Your task to perform on an android device: delete location history Image 0: 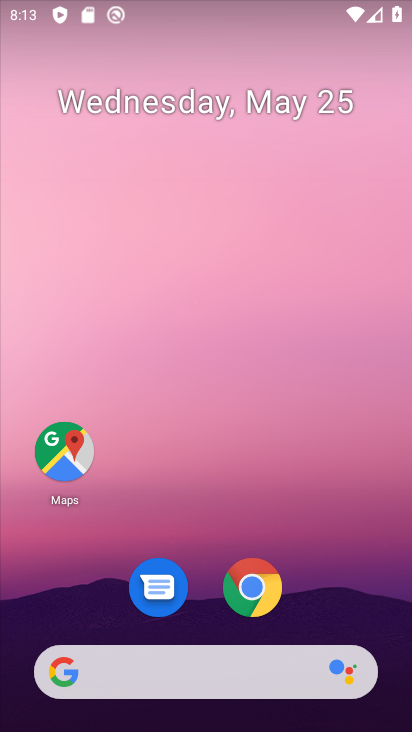
Step 0: drag from (305, 576) to (311, 151)
Your task to perform on an android device: delete location history Image 1: 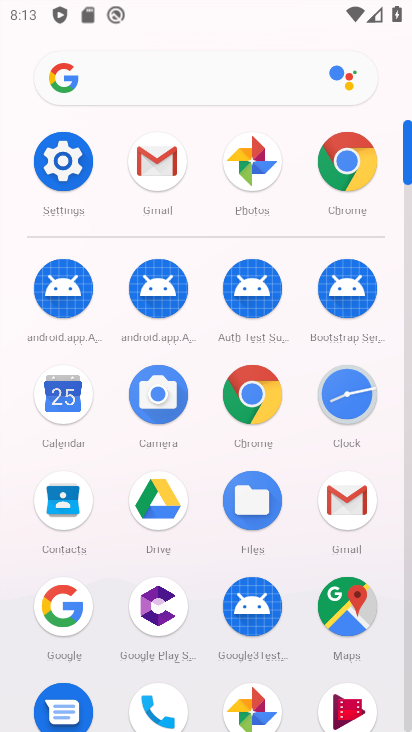
Step 1: click (352, 598)
Your task to perform on an android device: delete location history Image 2: 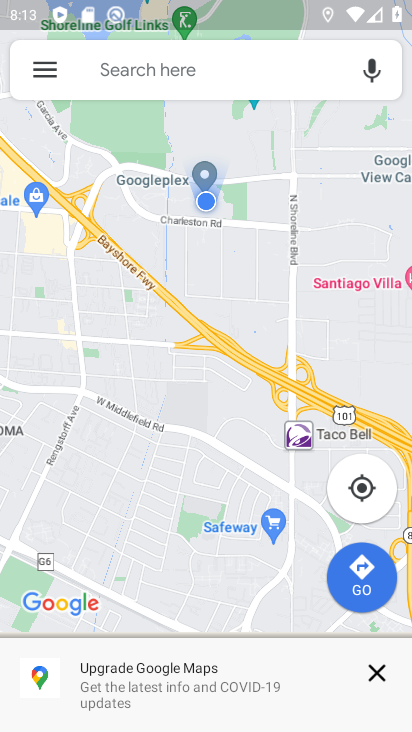
Step 2: click (53, 61)
Your task to perform on an android device: delete location history Image 3: 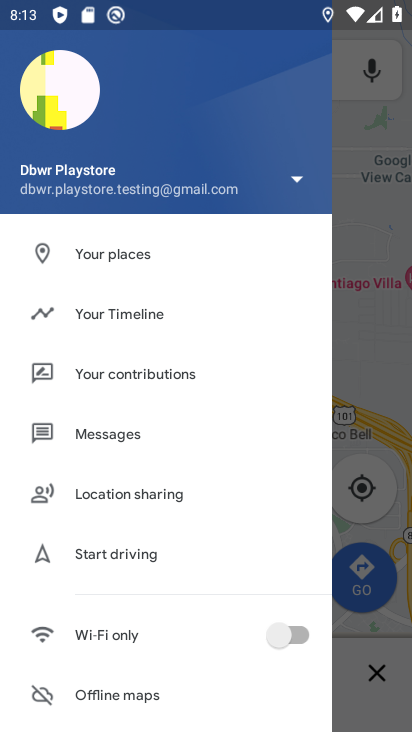
Step 3: click (90, 308)
Your task to perform on an android device: delete location history Image 4: 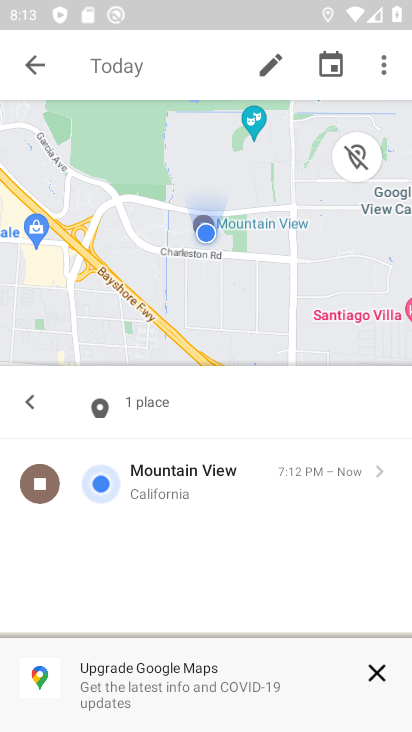
Step 4: click (384, 55)
Your task to perform on an android device: delete location history Image 5: 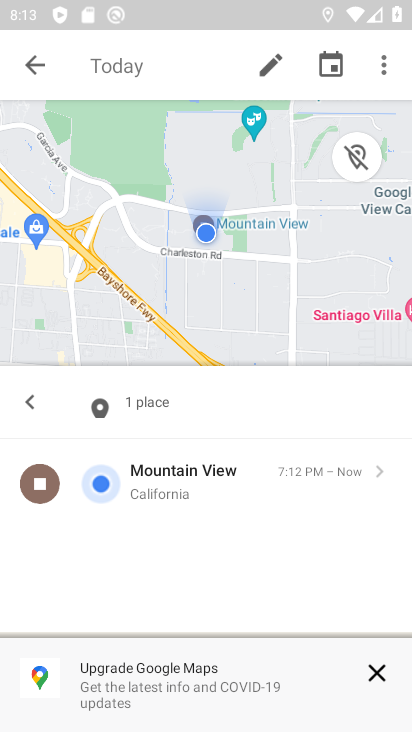
Step 5: click (384, 55)
Your task to perform on an android device: delete location history Image 6: 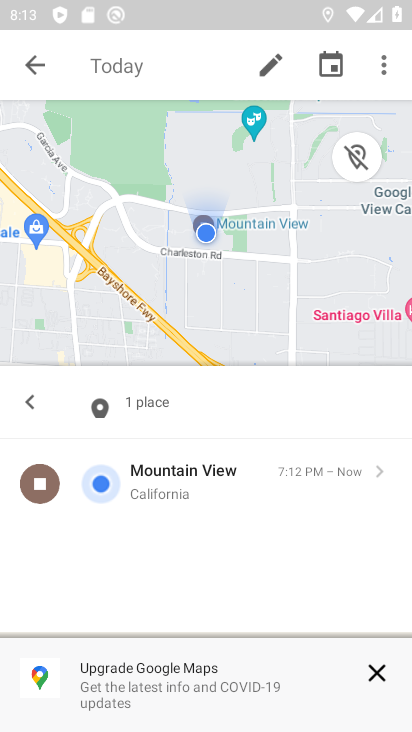
Step 6: click (384, 55)
Your task to perform on an android device: delete location history Image 7: 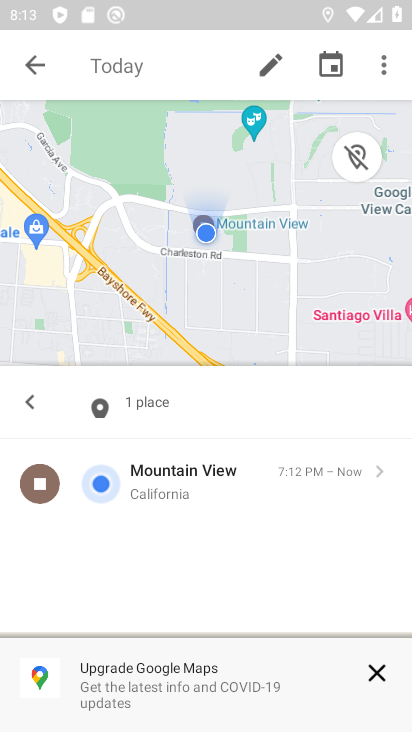
Step 7: click (384, 55)
Your task to perform on an android device: delete location history Image 8: 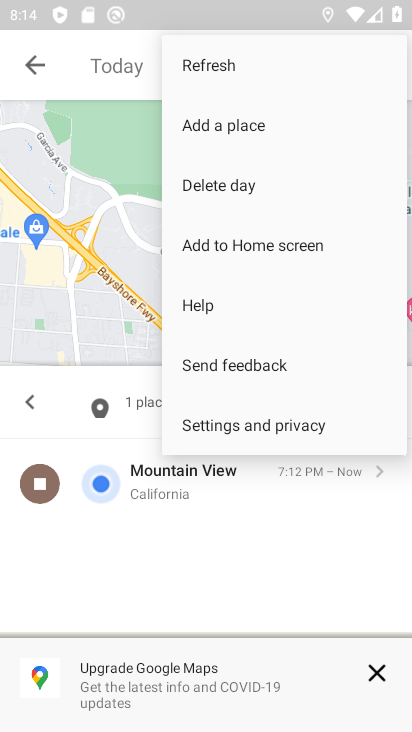
Step 8: click (206, 421)
Your task to perform on an android device: delete location history Image 9: 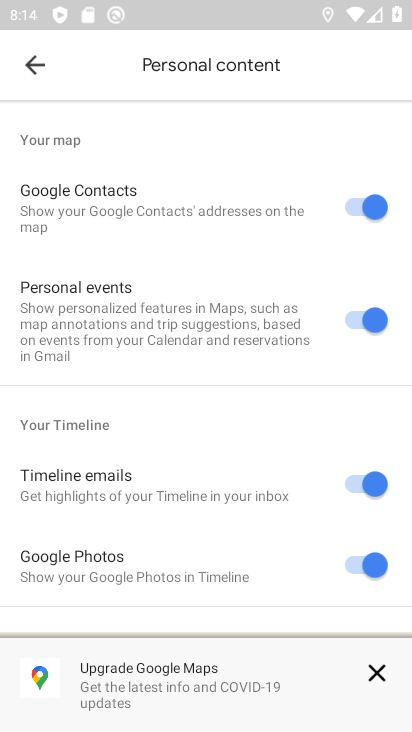
Step 9: drag from (202, 445) to (241, 195)
Your task to perform on an android device: delete location history Image 10: 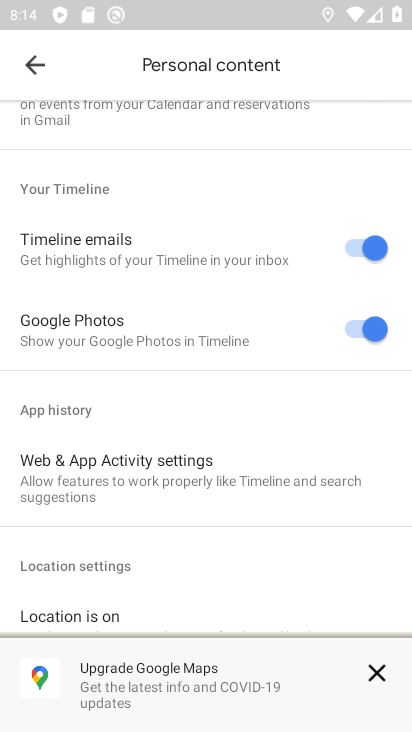
Step 10: drag from (219, 497) to (246, 263)
Your task to perform on an android device: delete location history Image 11: 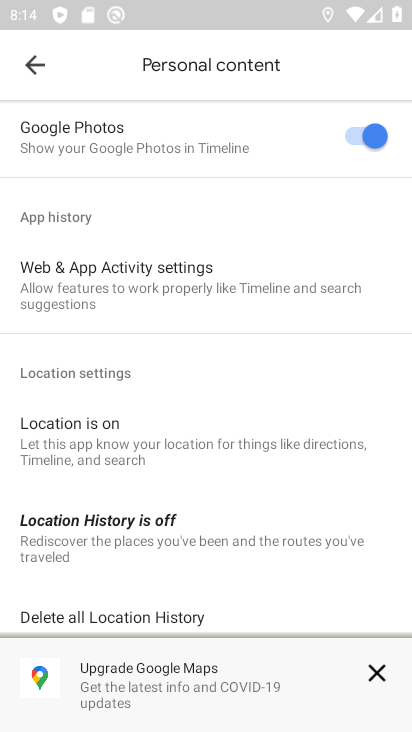
Step 11: click (92, 617)
Your task to perform on an android device: delete location history Image 12: 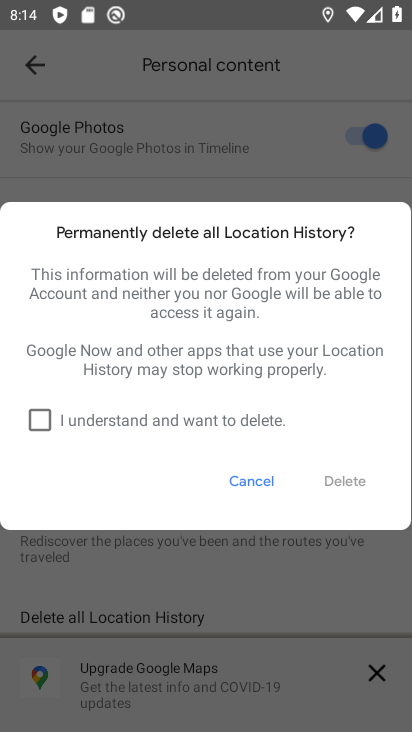
Step 12: click (45, 425)
Your task to perform on an android device: delete location history Image 13: 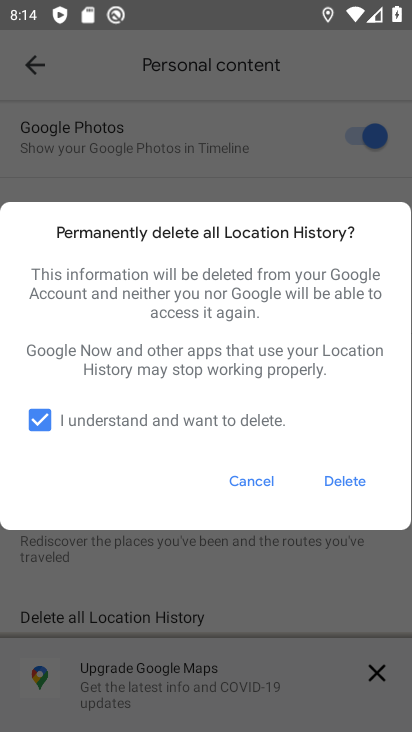
Step 13: click (341, 466)
Your task to perform on an android device: delete location history Image 14: 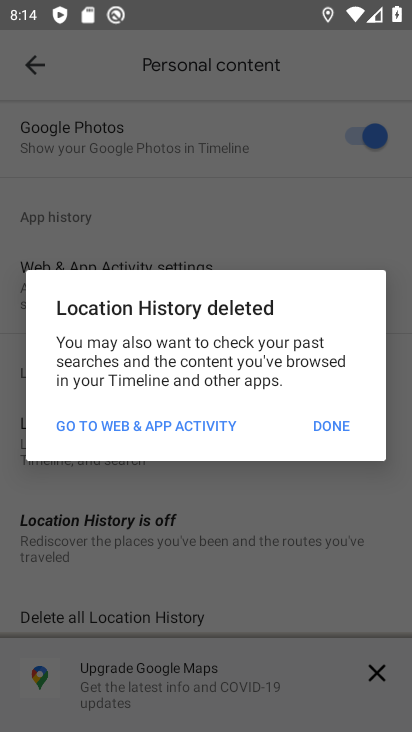
Step 14: click (336, 413)
Your task to perform on an android device: delete location history Image 15: 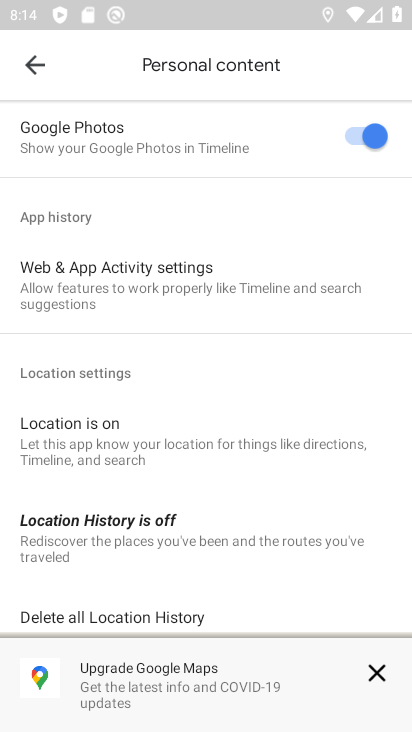
Step 15: task complete